Your task to perform on an android device: turn on the 12-hour format for clock Image 0: 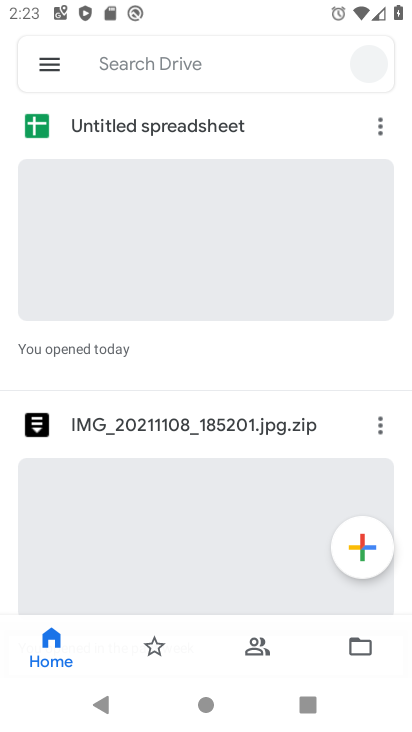
Step 0: press home button
Your task to perform on an android device: turn on the 12-hour format for clock Image 1: 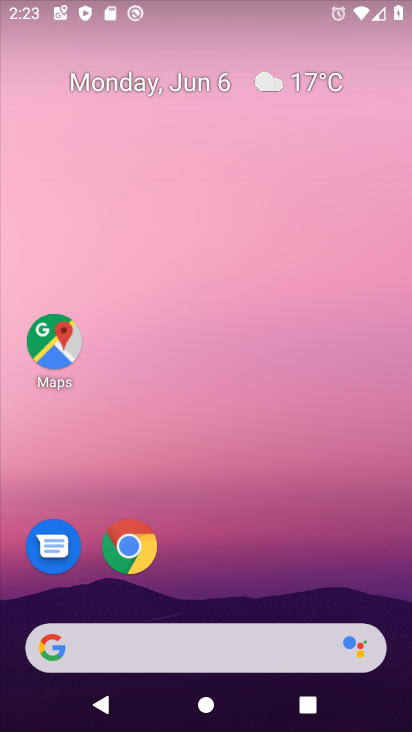
Step 1: drag from (203, 564) to (224, 200)
Your task to perform on an android device: turn on the 12-hour format for clock Image 2: 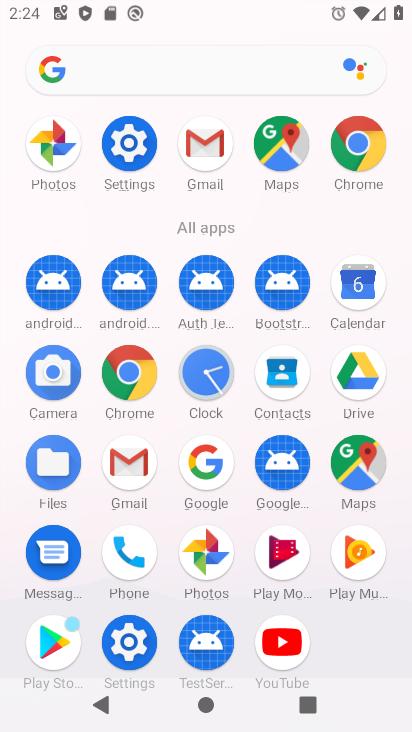
Step 2: click (197, 369)
Your task to perform on an android device: turn on the 12-hour format for clock Image 3: 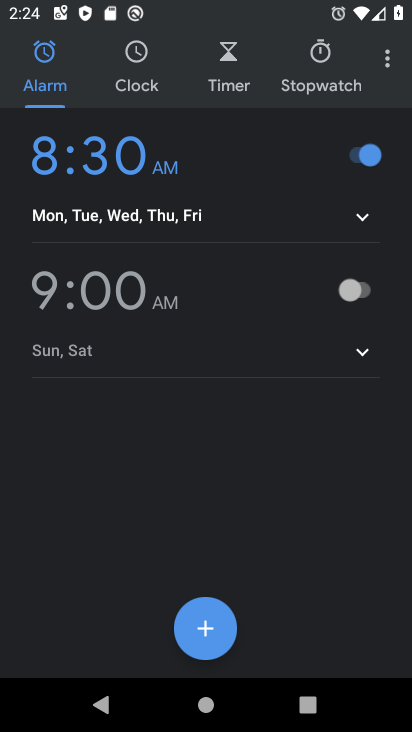
Step 3: click (376, 57)
Your task to perform on an android device: turn on the 12-hour format for clock Image 4: 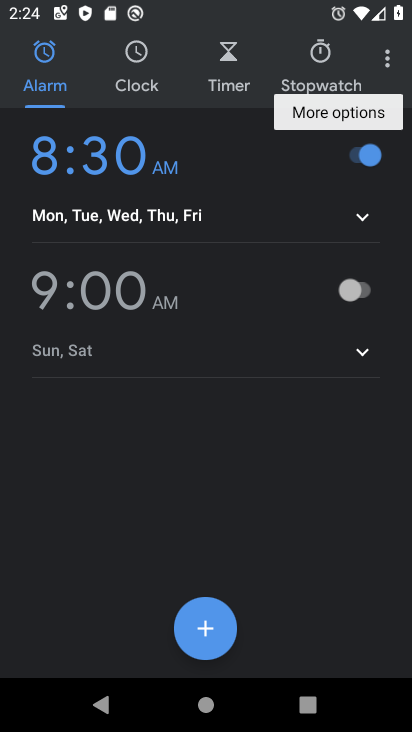
Step 4: click (395, 62)
Your task to perform on an android device: turn on the 12-hour format for clock Image 5: 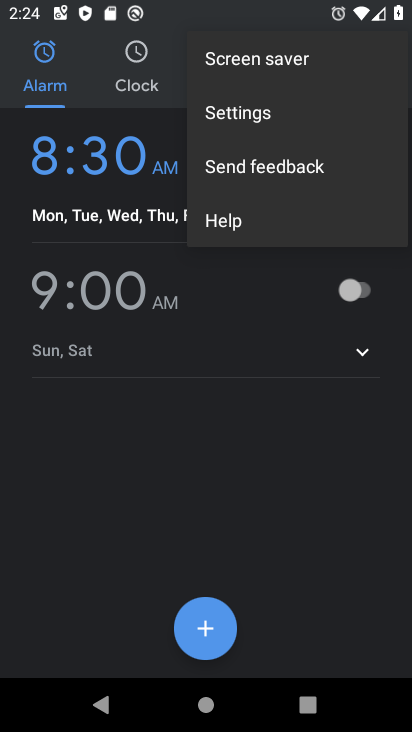
Step 5: click (272, 104)
Your task to perform on an android device: turn on the 12-hour format for clock Image 6: 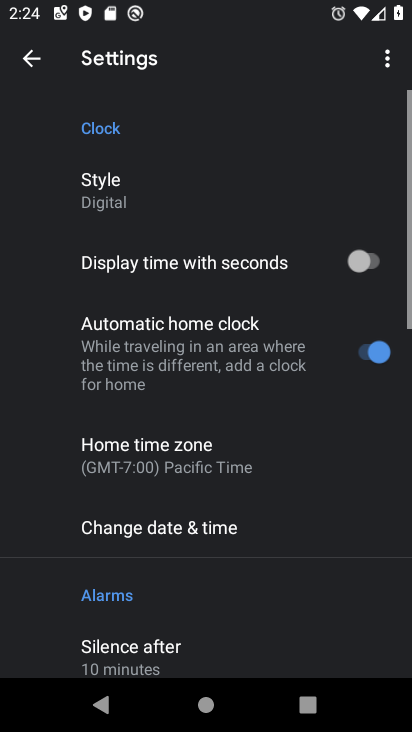
Step 6: drag from (152, 578) to (178, 410)
Your task to perform on an android device: turn on the 12-hour format for clock Image 7: 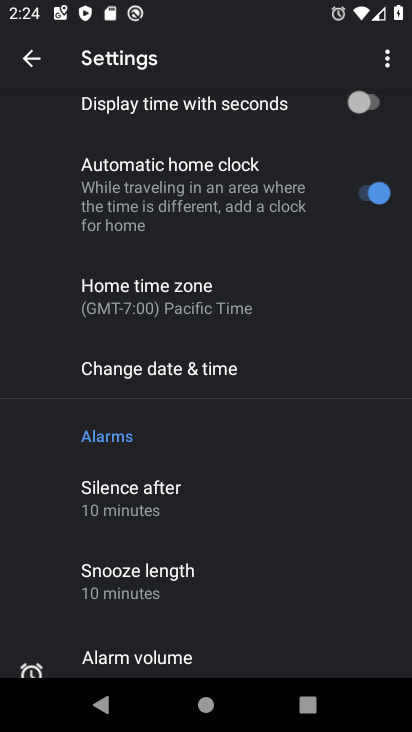
Step 7: click (193, 357)
Your task to perform on an android device: turn on the 12-hour format for clock Image 8: 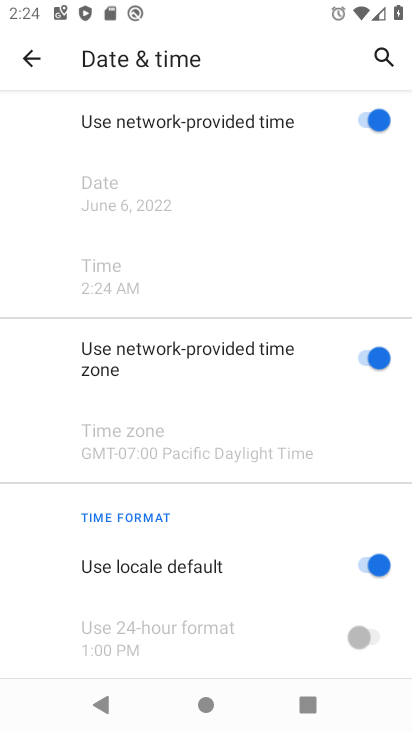
Step 8: click (355, 562)
Your task to perform on an android device: turn on the 12-hour format for clock Image 9: 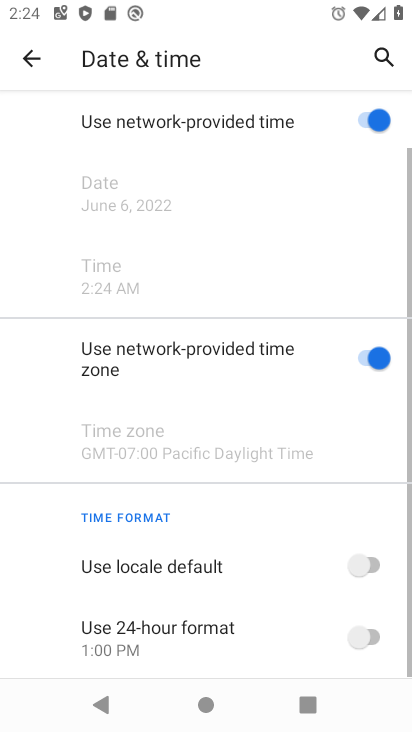
Step 9: click (363, 628)
Your task to perform on an android device: turn on the 12-hour format for clock Image 10: 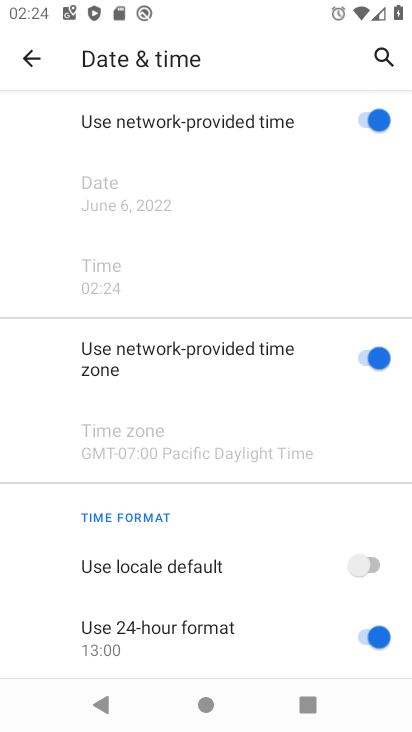
Step 10: task complete